Your task to perform on an android device: Open Google Chrome and open the bookmarks view Image 0: 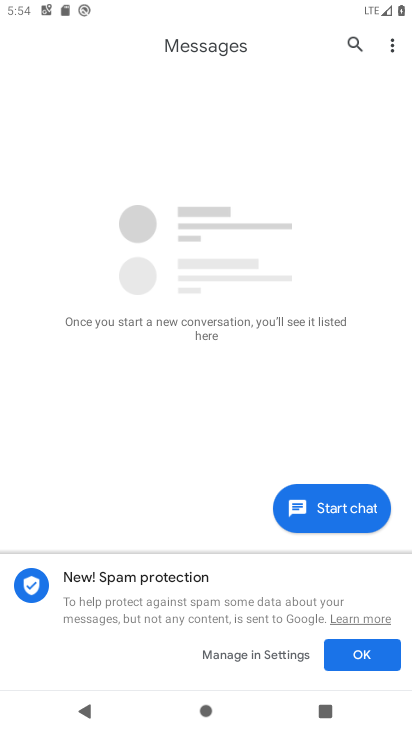
Step 0: press home button
Your task to perform on an android device: Open Google Chrome and open the bookmarks view Image 1: 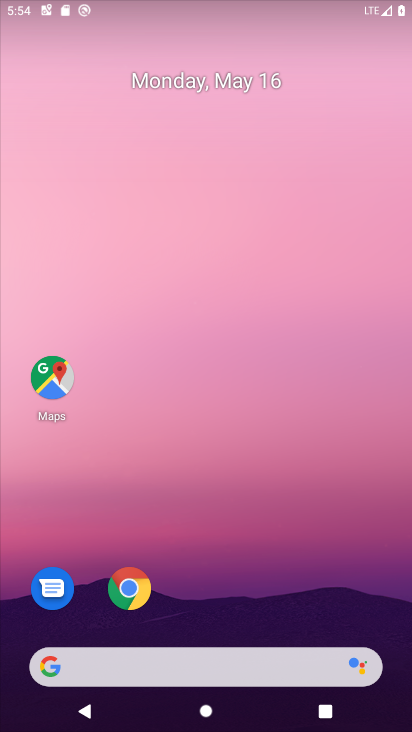
Step 1: drag from (252, 330) to (216, 115)
Your task to perform on an android device: Open Google Chrome and open the bookmarks view Image 2: 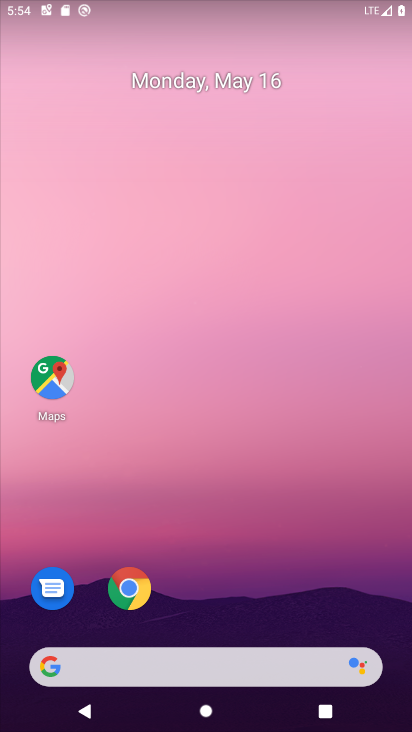
Step 2: click (128, 601)
Your task to perform on an android device: Open Google Chrome and open the bookmarks view Image 3: 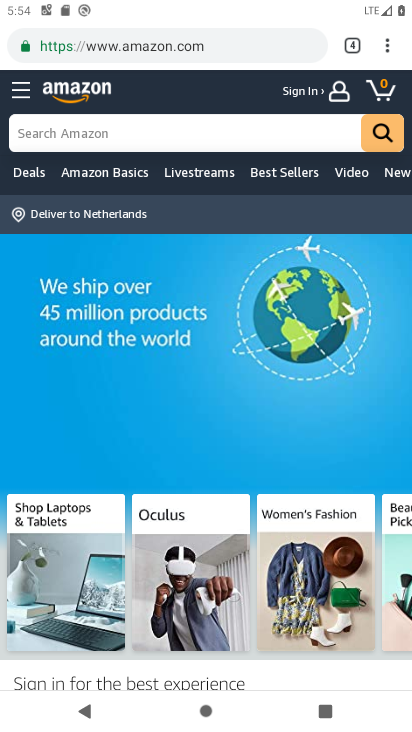
Step 3: click (383, 54)
Your task to perform on an android device: Open Google Chrome and open the bookmarks view Image 4: 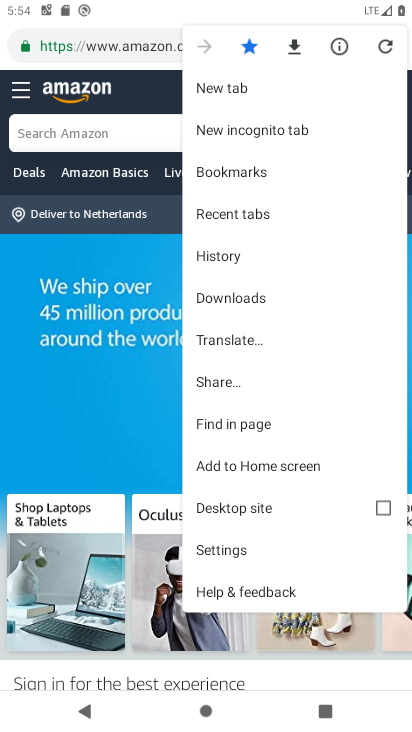
Step 4: click (245, 184)
Your task to perform on an android device: Open Google Chrome and open the bookmarks view Image 5: 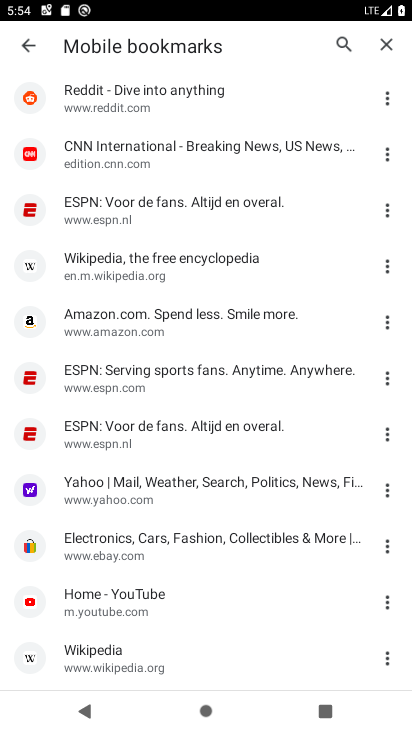
Step 5: click (137, 275)
Your task to perform on an android device: Open Google Chrome and open the bookmarks view Image 6: 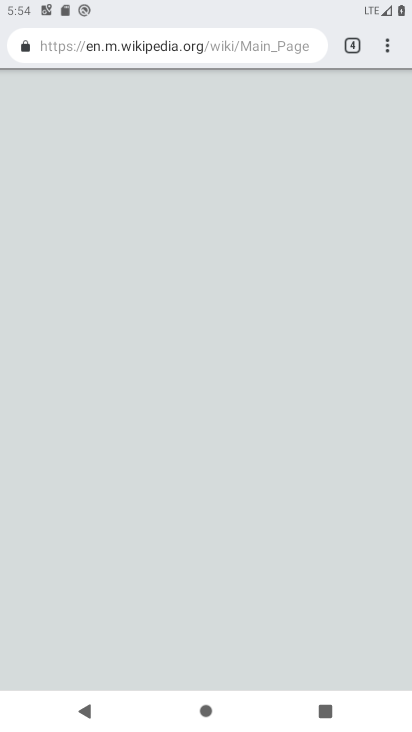
Step 6: task complete